Your task to perform on an android device: turn vacation reply on in the gmail app Image 0: 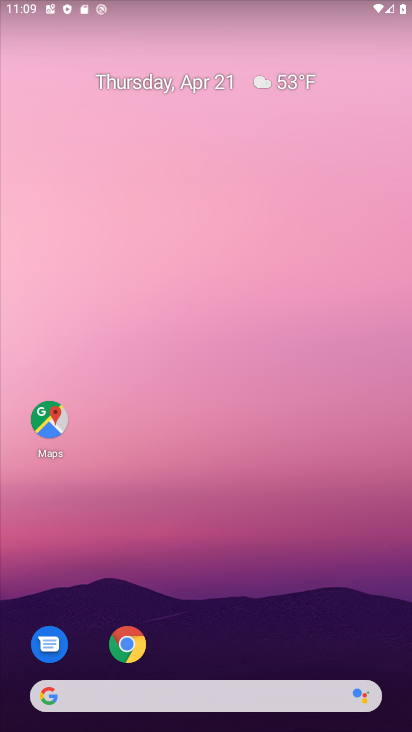
Step 0: drag from (236, 627) to (205, 259)
Your task to perform on an android device: turn vacation reply on in the gmail app Image 1: 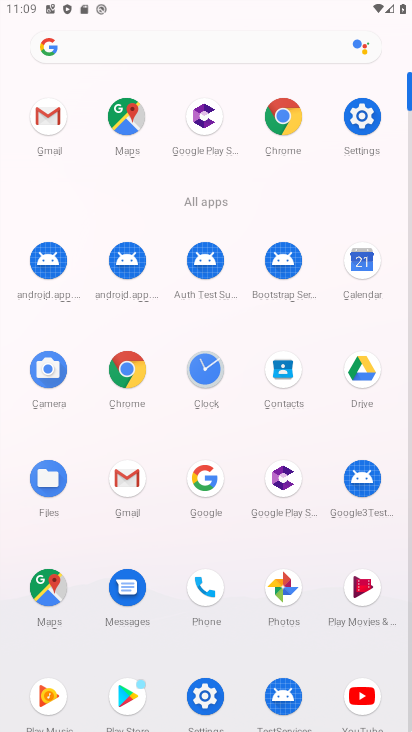
Step 1: click (49, 116)
Your task to perform on an android device: turn vacation reply on in the gmail app Image 2: 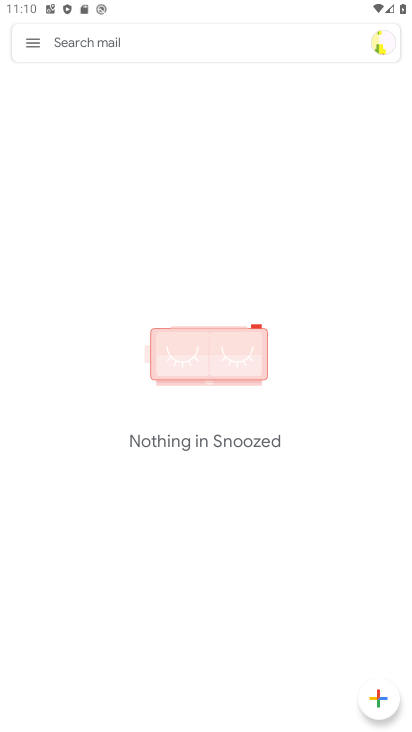
Step 2: click (31, 56)
Your task to perform on an android device: turn vacation reply on in the gmail app Image 3: 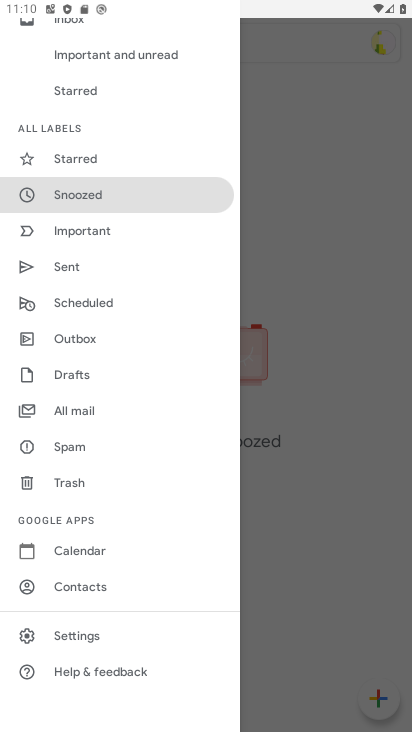
Step 3: click (122, 645)
Your task to perform on an android device: turn vacation reply on in the gmail app Image 4: 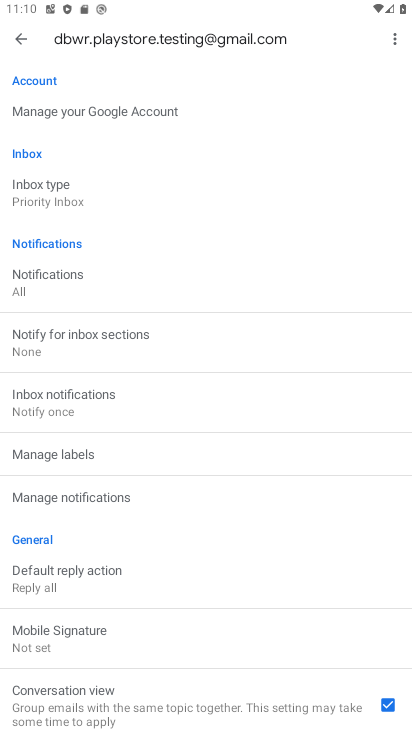
Step 4: drag from (251, 629) to (232, 437)
Your task to perform on an android device: turn vacation reply on in the gmail app Image 5: 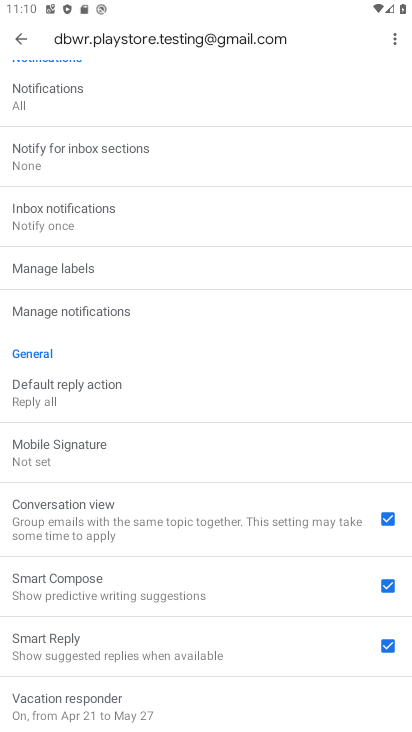
Step 5: click (242, 697)
Your task to perform on an android device: turn vacation reply on in the gmail app Image 6: 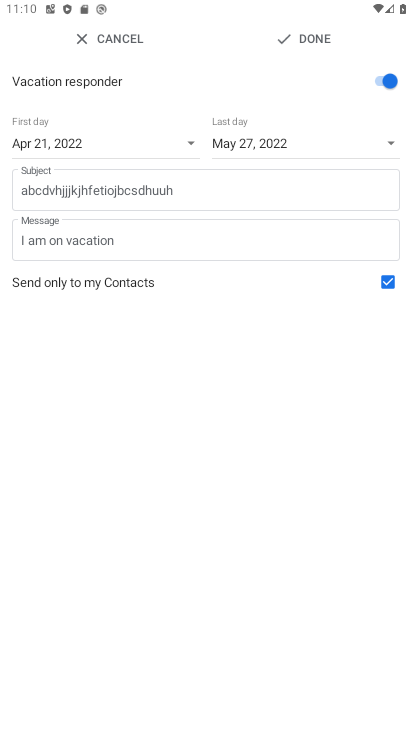
Step 6: click (323, 136)
Your task to perform on an android device: turn vacation reply on in the gmail app Image 7: 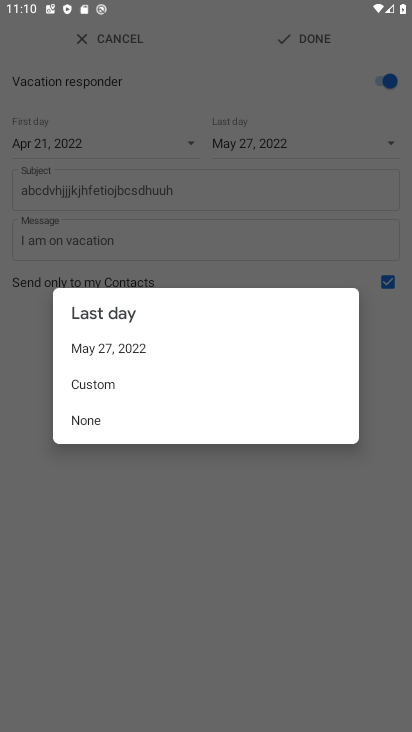
Step 7: click (171, 378)
Your task to perform on an android device: turn vacation reply on in the gmail app Image 8: 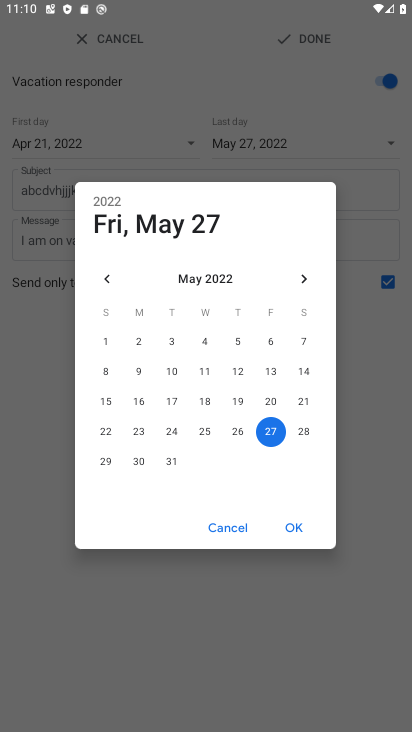
Step 8: click (171, 378)
Your task to perform on an android device: turn vacation reply on in the gmail app Image 9: 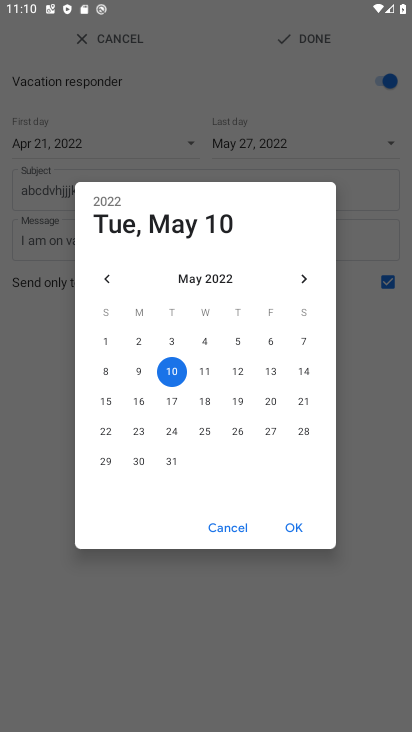
Step 9: click (296, 529)
Your task to perform on an android device: turn vacation reply on in the gmail app Image 10: 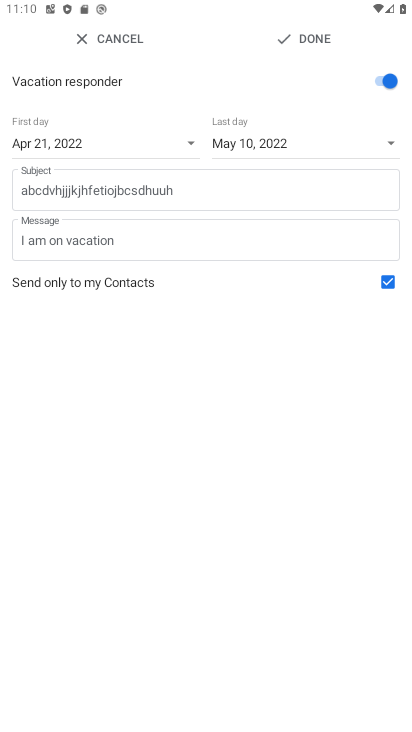
Step 10: click (309, 42)
Your task to perform on an android device: turn vacation reply on in the gmail app Image 11: 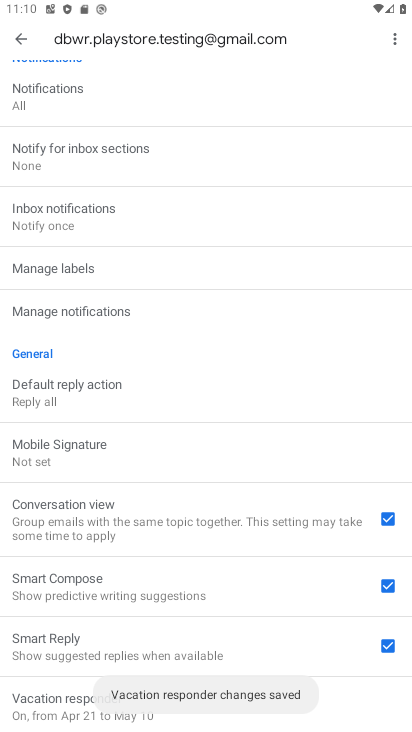
Step 11: task complete